Your task to perform on an android device: turn on the 12-hour format for clock Image 0: 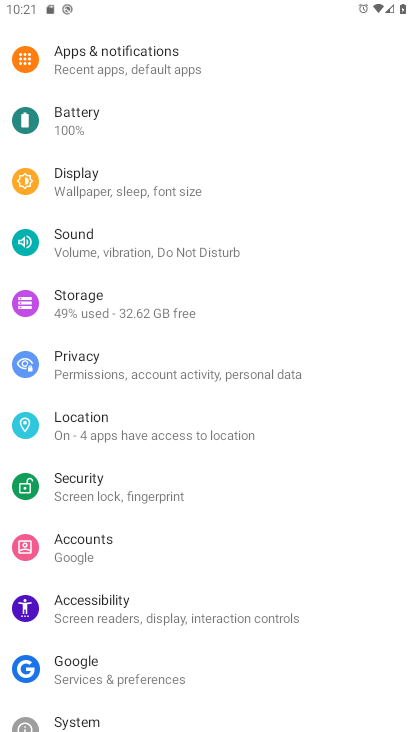
Step 0: drag from (220, 628) to (252, 97)
Your task to perform on an android device: turn on the 12-hour format for clock Image 1: 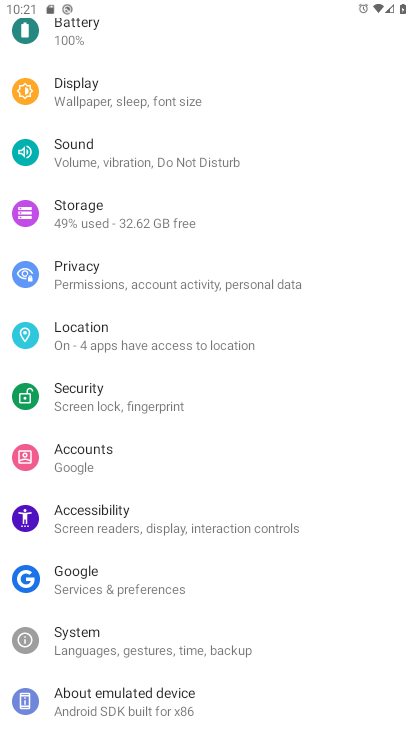
Step 1: click (115, 648)
Your task to perform on an android device: turn on the 12-hour format for clock Image 2: 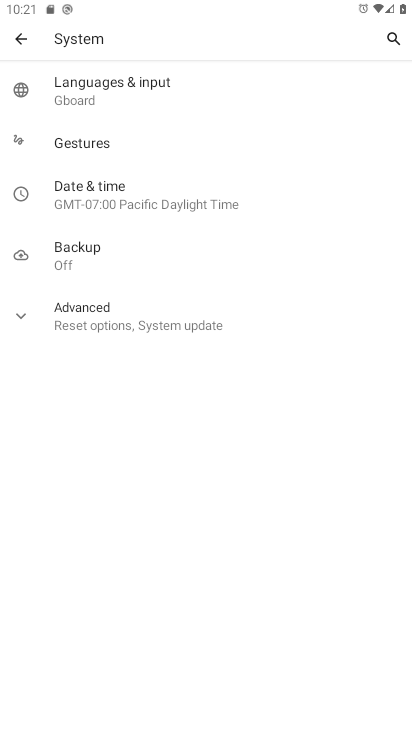
Step 2: click (105, 200)
Your task to perform on an android device: turn on the 12-hour format for clock Image 3: 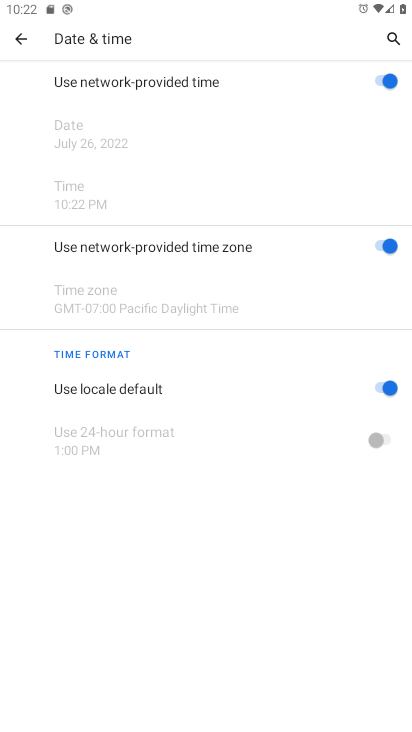
Step 3: task complete